Your task to perform on an android device: Go to notification settings Image 0: 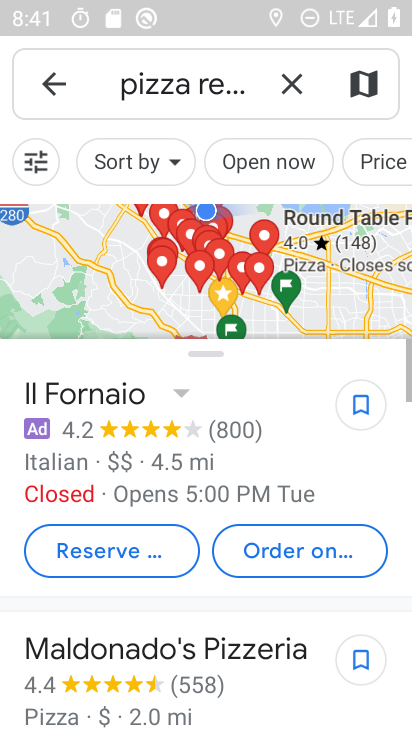
Step 0: press home button
Your task to perform on an android device: Go to notification settings Image 1: 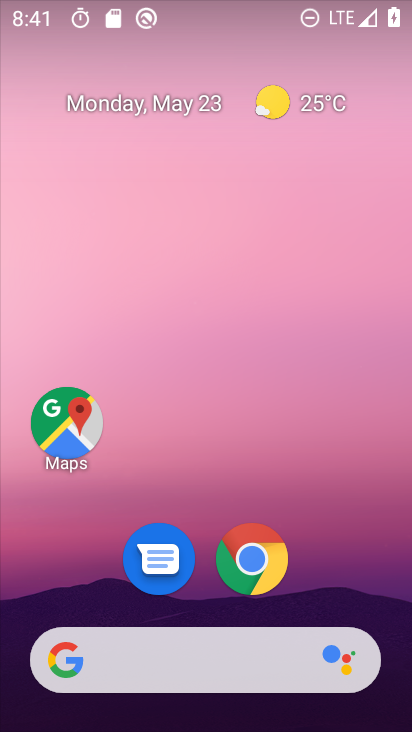
Step 1: drag from (398, 637) to (302, 33)
Your task to perform on an android device: Go to notification settings Image 2: 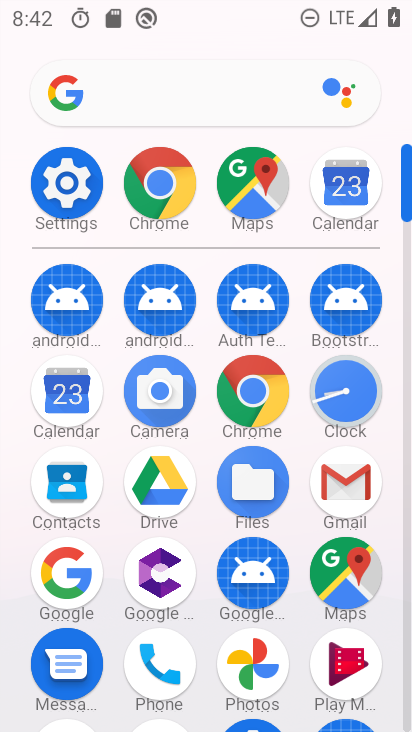
Step 2: click (74, 202)
Your task to perform on an android device: Go to notification settings Image 3: 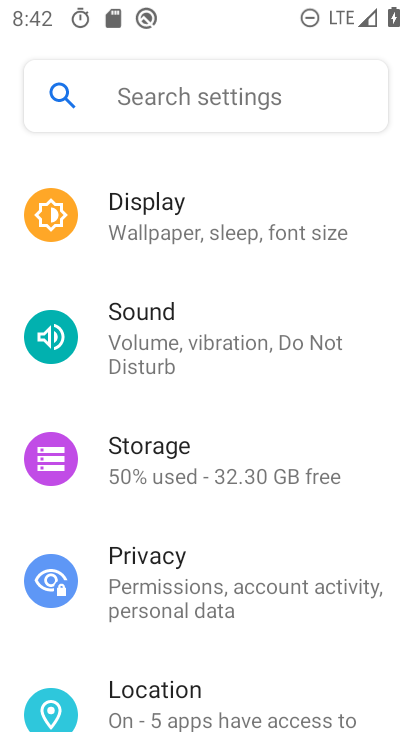
Step 3: drag from (84, 650) to (195, 279)
Your task to perform on an android device: Go to notification settings Image 4: 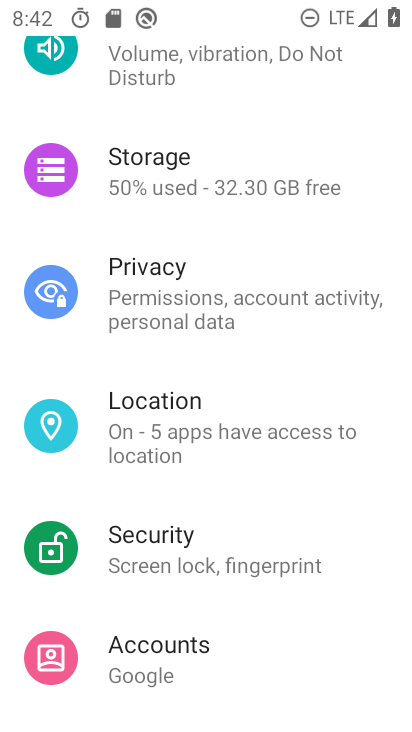
Step 4: drag from (133, 640) to (203, 216)
Your task to perform on an android device: Go to notification settings Image 5: 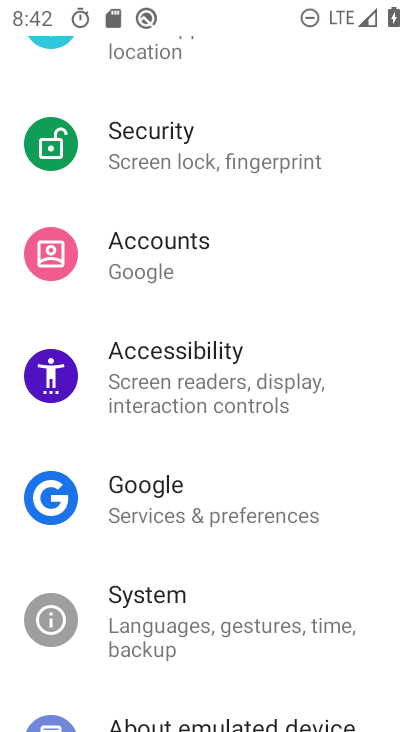
Step 5: drag from (236, 185) to (124, 657)
Your task to perform on an android device: Go to notification settings Image 6: 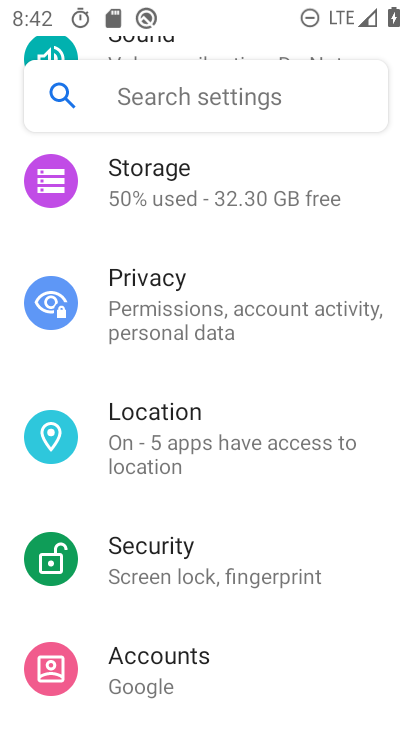
Step 6: drag from (211, 208) to (220, 551)
Your task to perform on an android device: Go to notification settings Image 7: 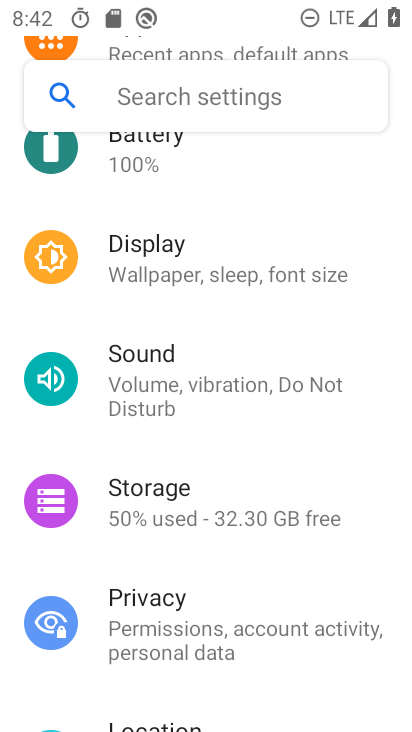
Step 7: drag from (217, 204) to (230, 552)
Your task to perform on an android device: Go to notification settings Image 8: 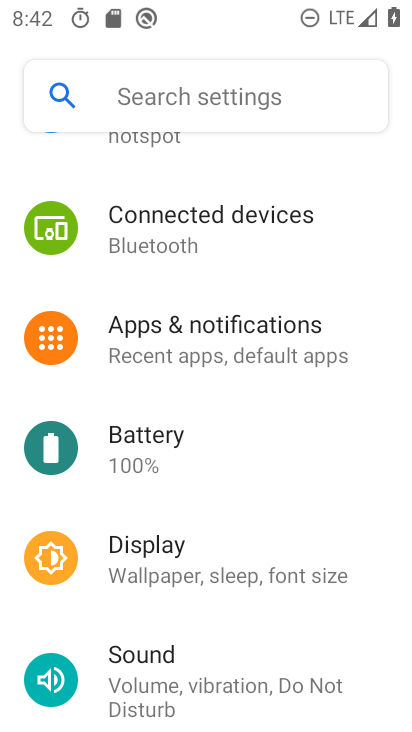
Step 8: click (290, 364)
Your task to perform on an android device: Go to notification settings Image 9: 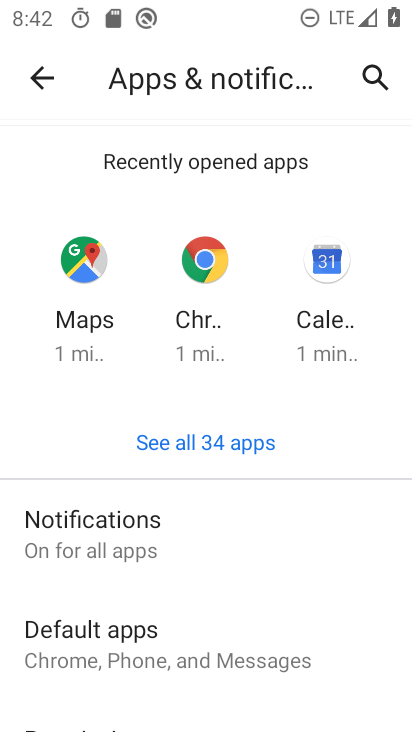
Step 9: click (232, 528)
Your task to perform on an android device: Go to notification settings Image 10: 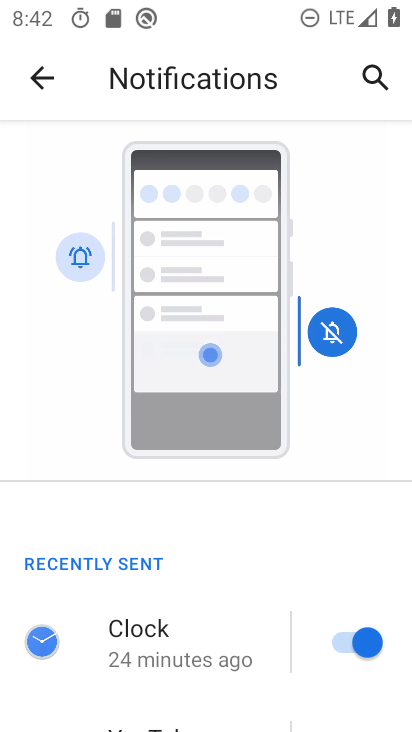
Step 10: task complete